Your task to perform on an android device: Show me popular games on the Play Store Image 0: 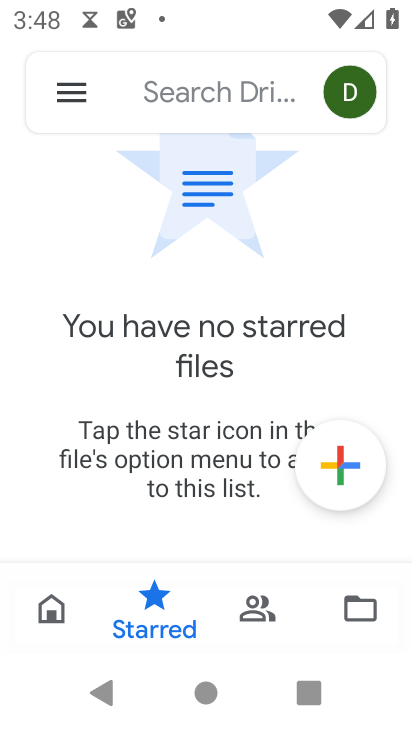
Step 0: press home button
Your task to perform on an android device: Show me popular games on the Play Store Image 1: 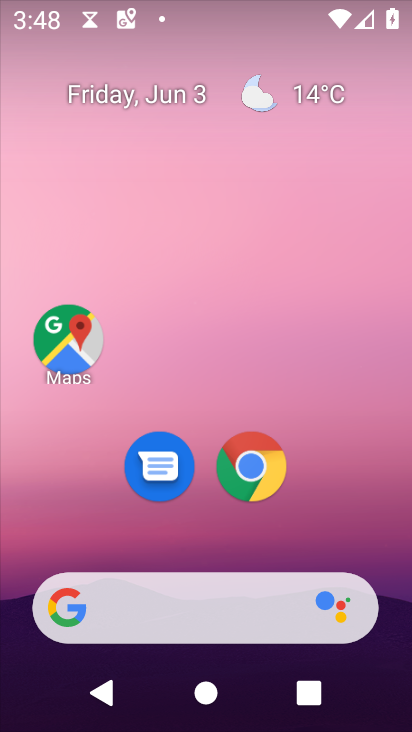
Step 1: drag from (359, 515) to (370, 0)
Your task to perform on an android device: Show me popular games on the Play Store Image 2: 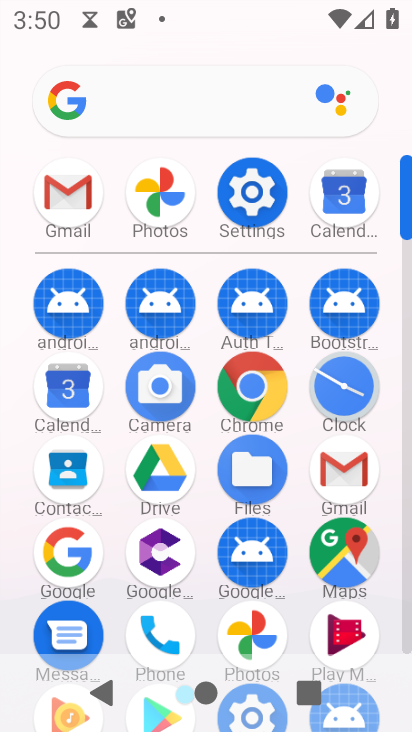
Step 2: drag from (208, 651) to (220, 7)
Your task to perform on an android device: Show me popular games on the Play Store Image 3: 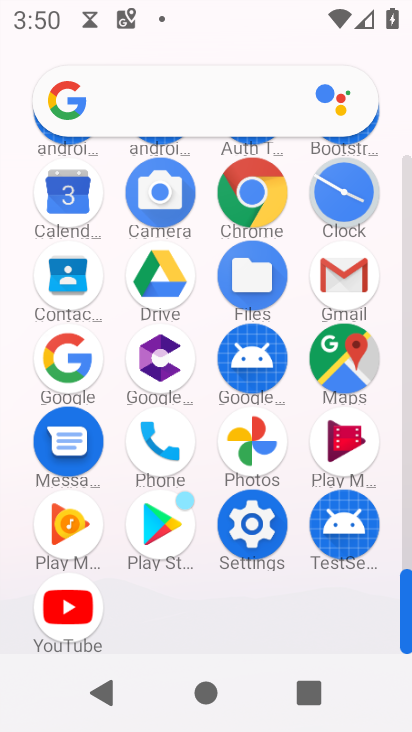
Step 3: click (146, 526)
Your task to perform on an android device: Show me popular games on the Play Store Image 4: 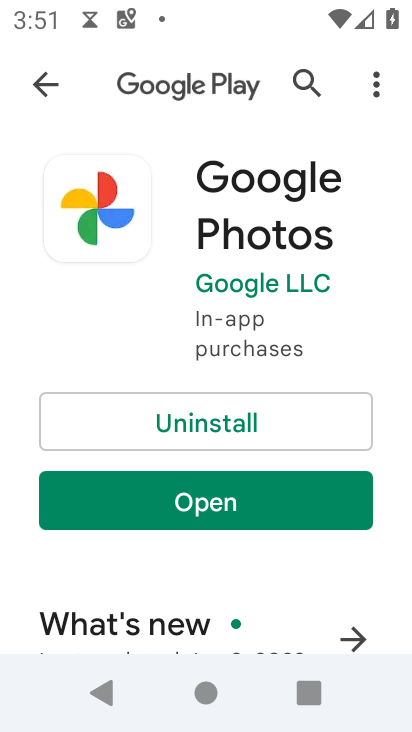
Step 4: click (305, 75)
Your task to perform on an android device: Show me popular games on the Play Store Image 5: 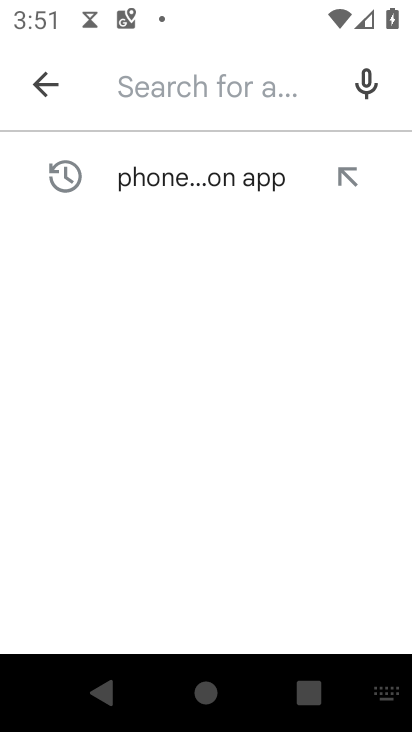
Step 5: click (180, 78)
Your task to perform on an android device: Show me popular games on the Play Store Image 6: 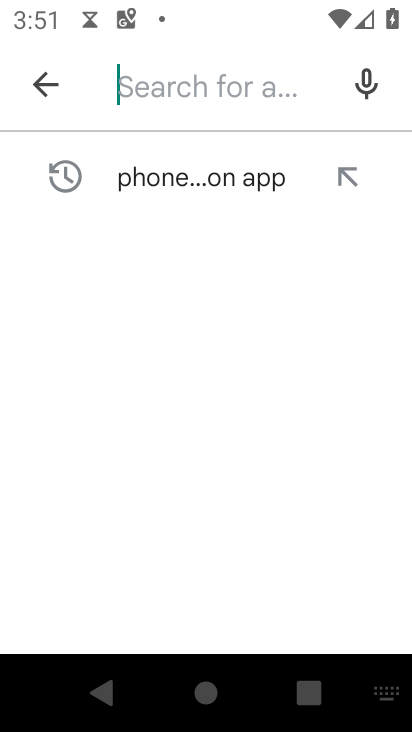
Step 6: type "popular games"
Your task to perform on an android device: Show me popular games on the Play Store Image 7: 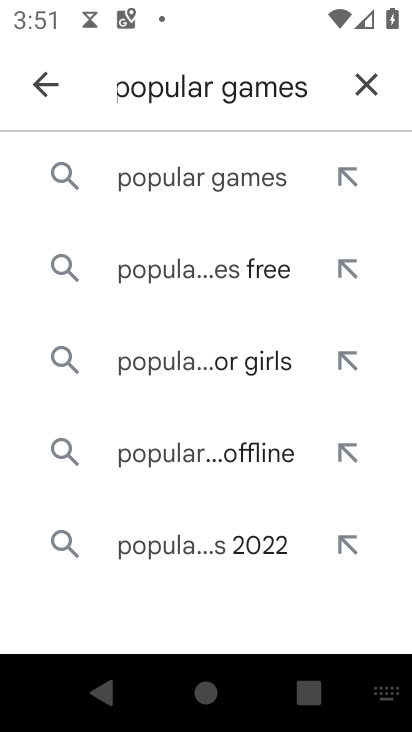
Step 7: click (251, 188)
Your task to perform on an android device: Show me popular games on the Play Store Image 8: 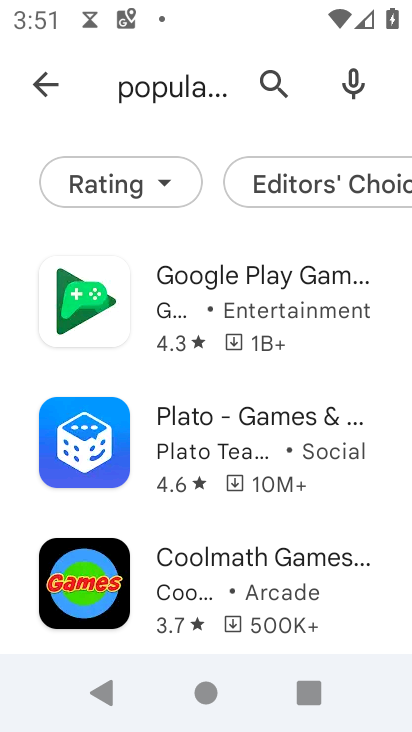
Step 8: task complete